Your task to perform on an android device: Show me productivity apps on the Play Store Image 0: 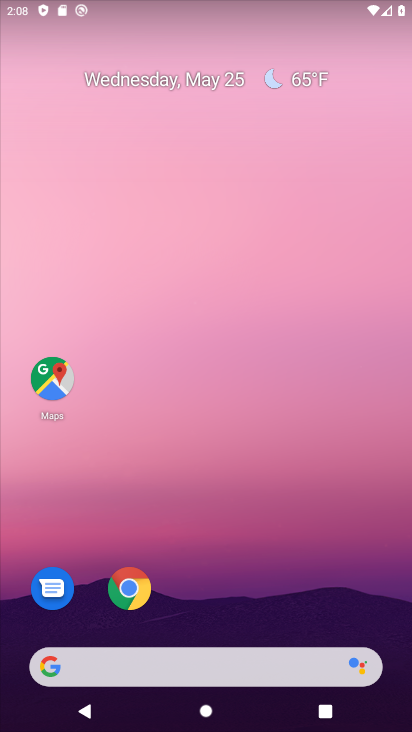
Step 0: drag from (167, 600) to (198, 133)
Your task to perform on an android device: Show me productivity apps on the Play Store Image 1: 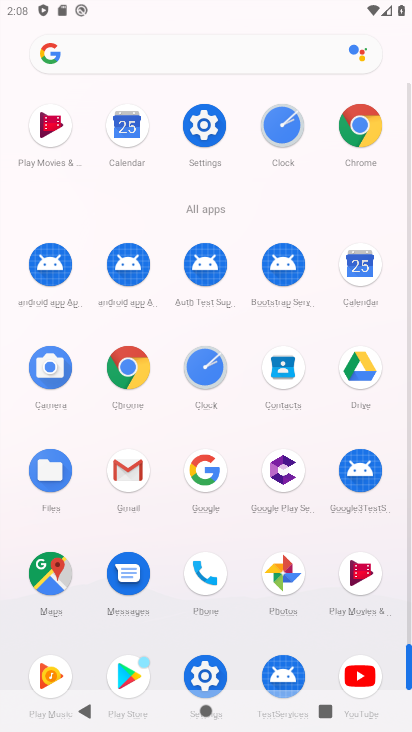
Step 1: drag from (232, 600) to (257, 235)
Your task to perform on an android device: Show me productivity apps on the Play Store Image 2: 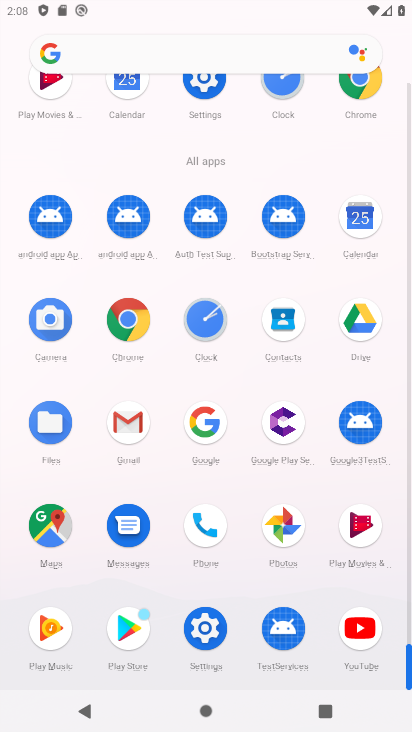
Step 2: click (127, 609)
Your task to perform on an android device: Show me productivity apps on the Play Store Image 3: 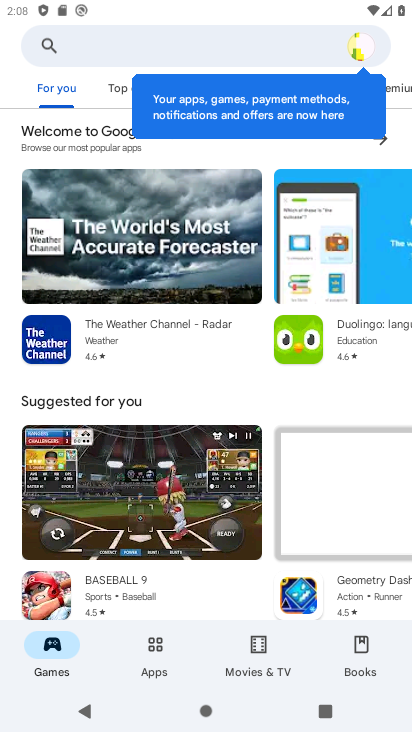
Step 3: click (161, 654)
Your task to perform on an android device: Show me productivity apps on the Play Store Image 4: 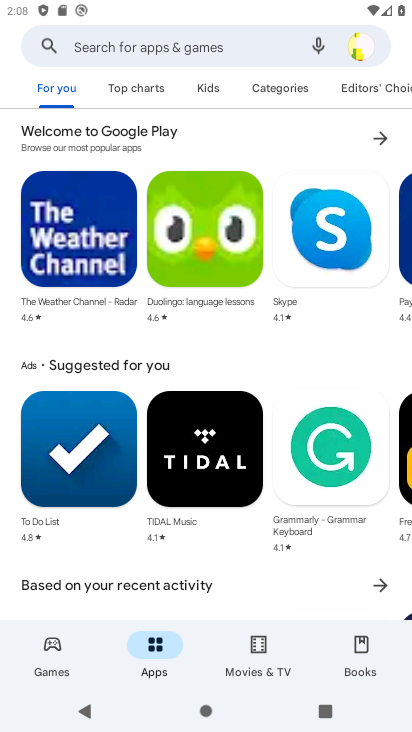
Step 4: drag from (369, 98) to (163, 107)
Your task to perform on an android device: Show me productivity apps on the Play Store Image 5: 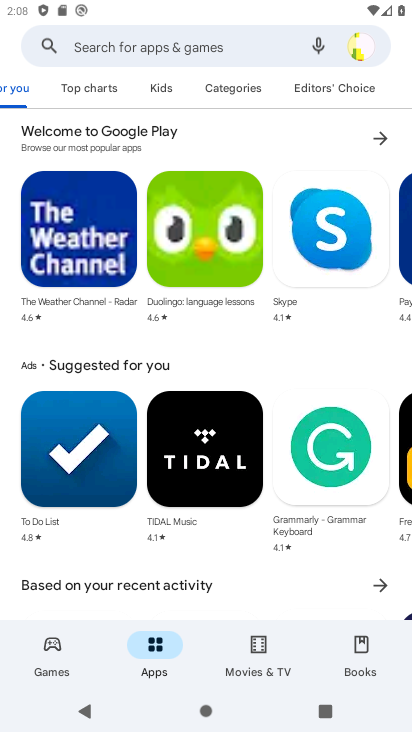
Step 5: click (221, 88)
Your task to perform on an android device: Show me productivity apps on the Play Store Image 6: 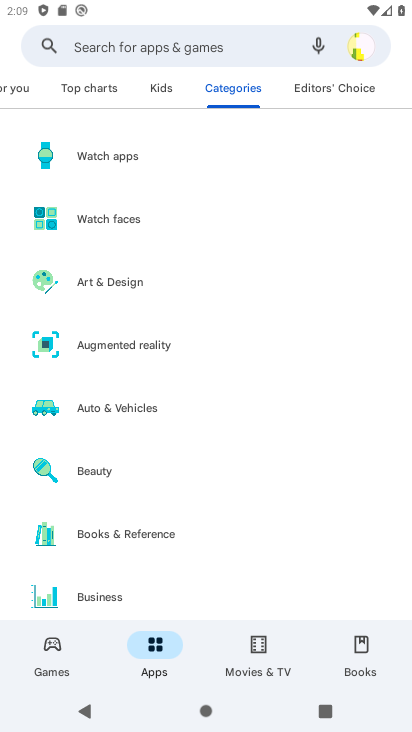
Step 6: drag from (124, 503) to (141, 269)
Your task to perform on an android device: Show me productivity apps on the Play Store Image 7: 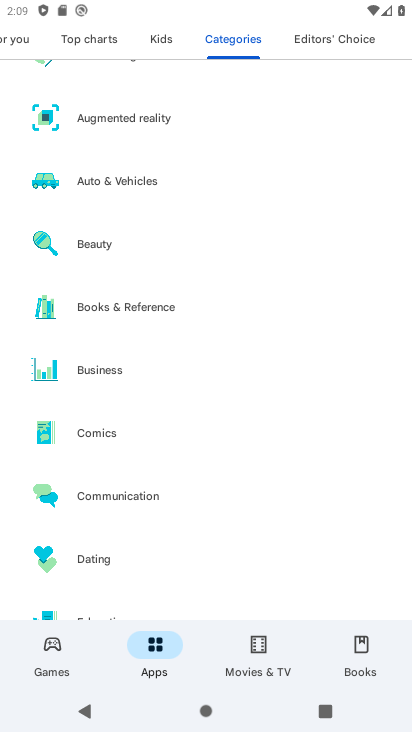
Step 7: drag from (97, 480) to (119, 220)
Your task to perform on an android device: Show me productivity apps on the Play Store Image 8: 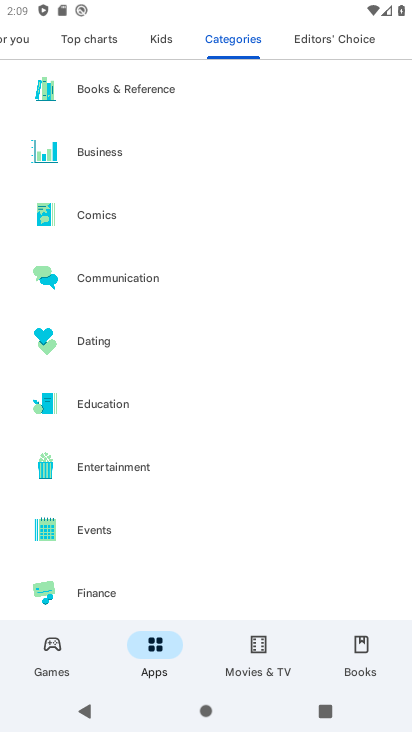
Step 8: drag from (120, 530) to (201, 193)
Your task to perform on an android device: Show me productivity apps on the Play Store Image 9: 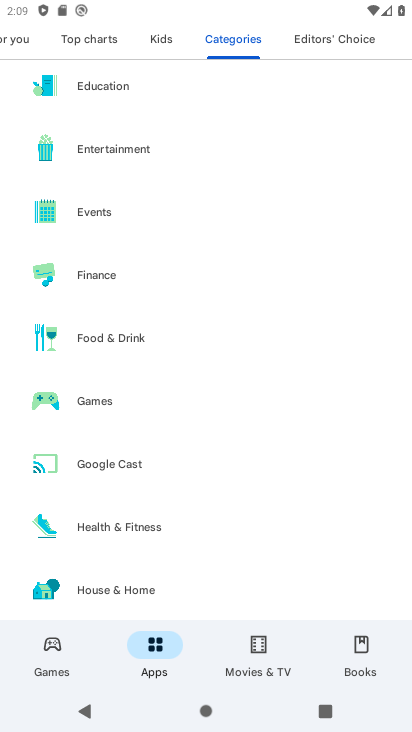
Step 9: drag from (125, 515) to (158, 309)
Your task to perform on an android device: Show me productivity apps on the Play Store Image 10: 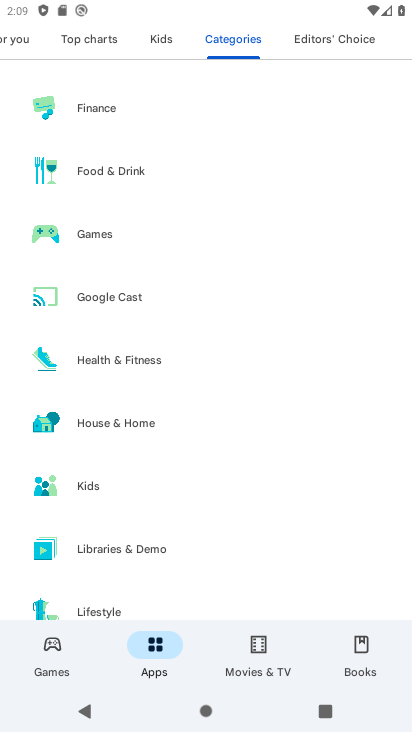
Step 10: drag from (111, 569) to (201, 113)
Your task to perform on an android device: Show me productivity apps on the Play Store Image 11: 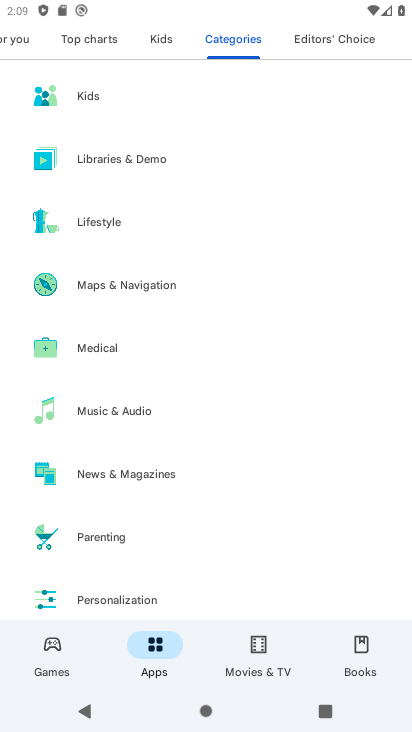
Step 11: drag from (123, 550) to (171, 139)
Your task to perform on an android device: Show me productivity apps on the Play Store Image 12: 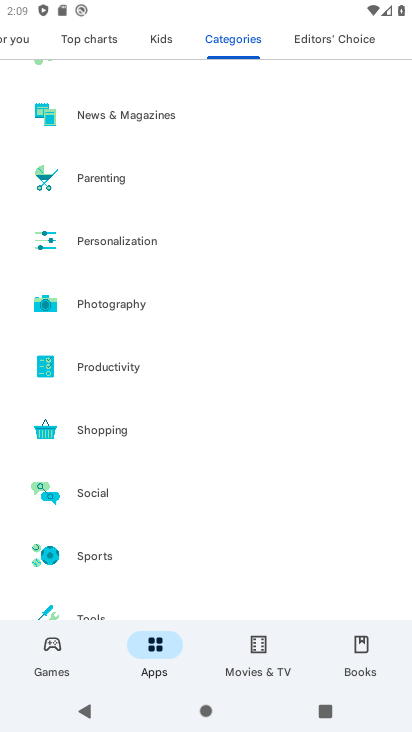
Step 12: click (120, 372)
Your task to perform on an android device: Show me productivity apps on the Play Store Image 13: 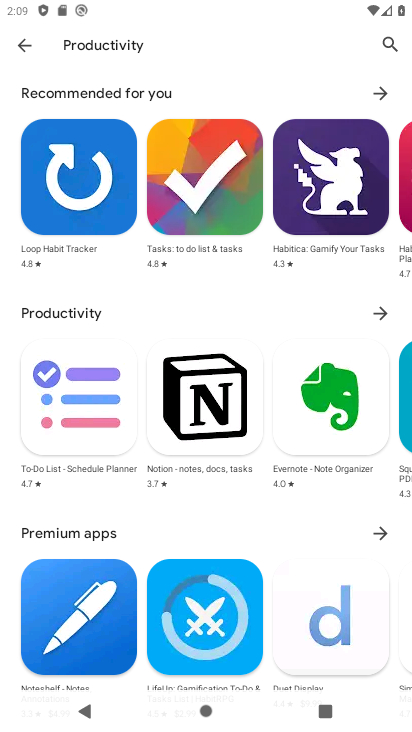
Step 13: task complete